Your task to perform on an android device: Go to Wikipedia Image 0: 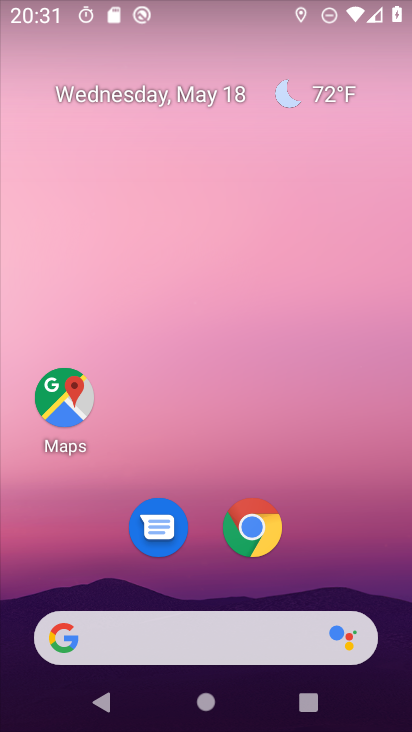
Step 0: click (255, 520)
Your task to perform on an android device: Go to Wikipedia Image 1: 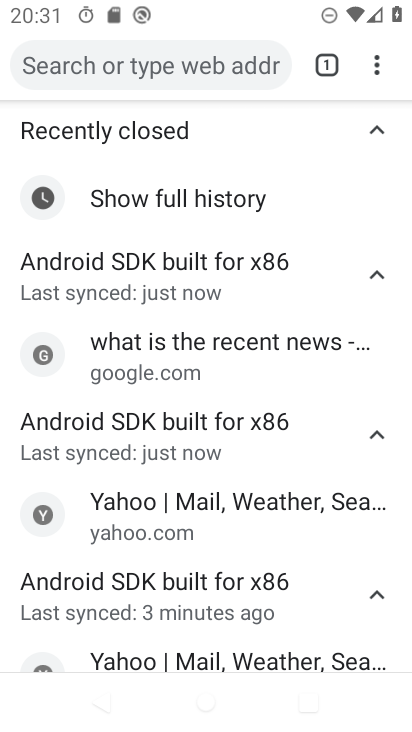
Step 1: click (279, 62)
Your task to perform on an android device: Go to Wikipedia Image 2: 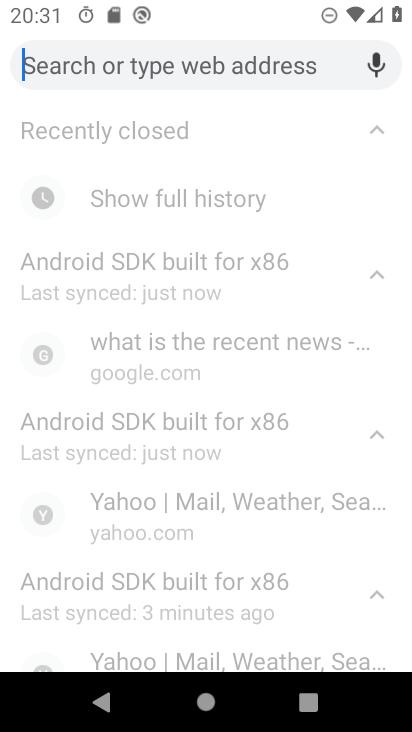
Step 2: type "Wikipedia"
Your task to perform on an android device: Go to Wikipedia Image 3: 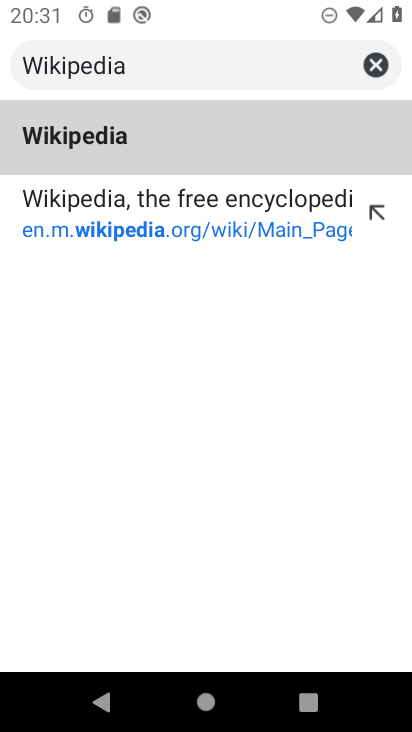
Step 3: click (91, 143)
Your task to perform on an android device: Go to Wikipedia Image 4: 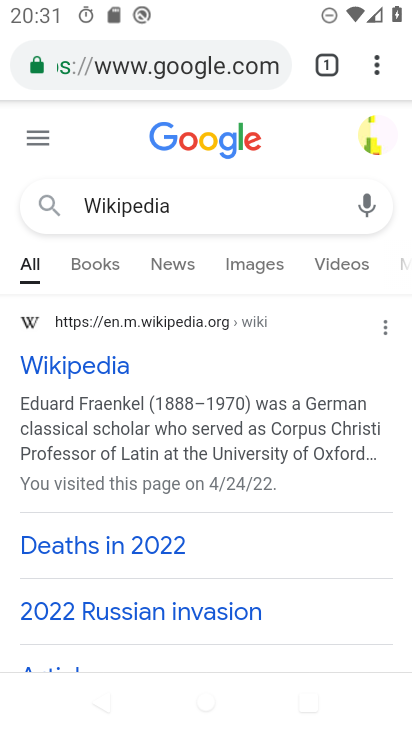
Step 4: task complete